Your task to perform on an android device: open app "Venmo" (install if not already installed) Image 0: 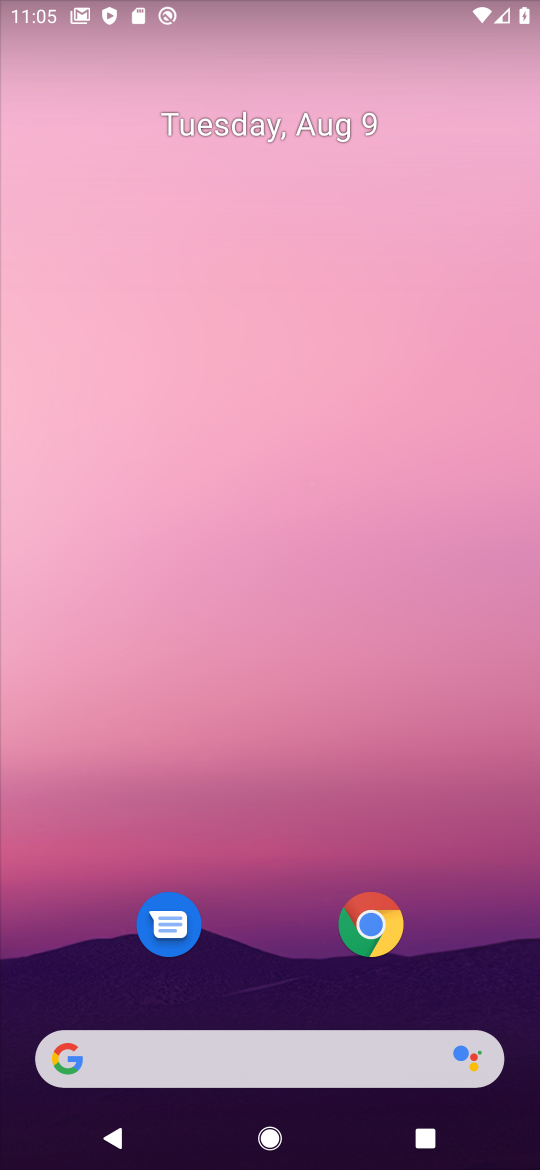
Step 0: drag from (249, 974) to (369, 147)
Your task to perform on an android device: open app "Venmo" (install if not already installed) Image 1: 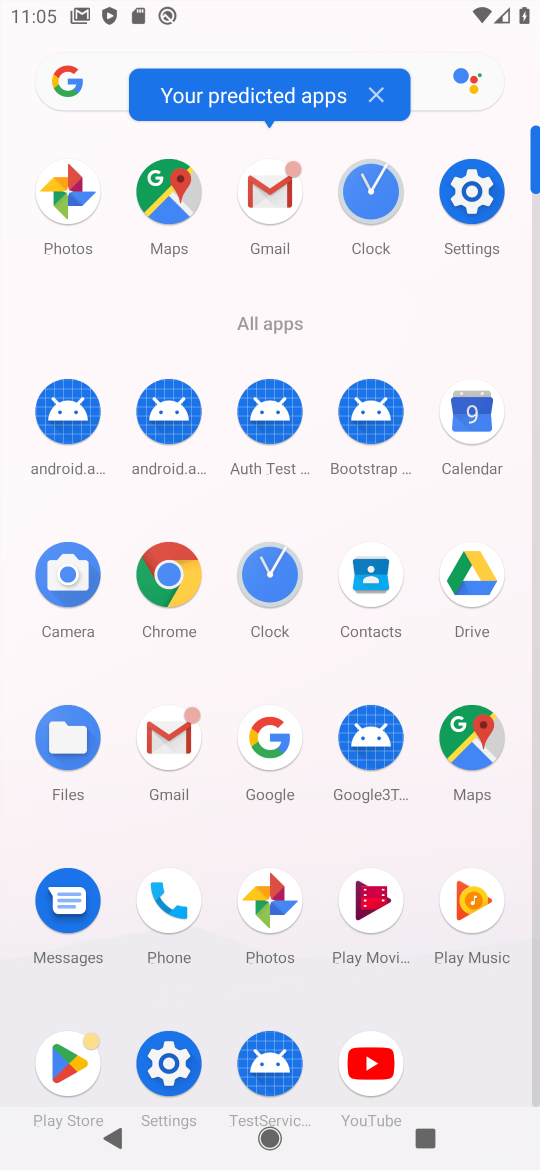
Step 1: click (62, 1058)
Your task to perform on an android device: open app "Venmo" (install if not already installed) Image 2: 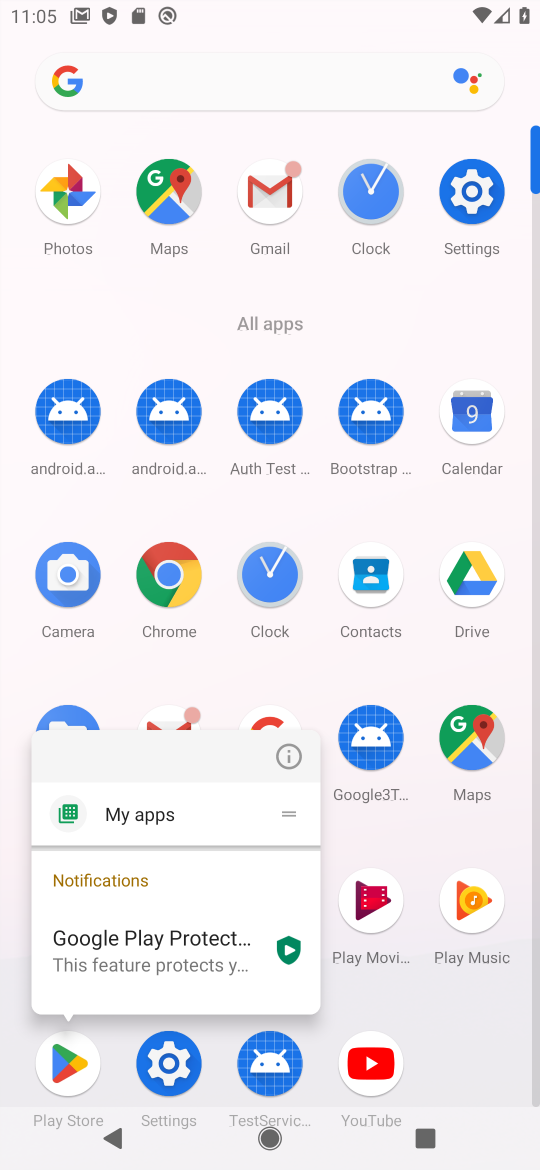
Step 2: click (72, 1060)
Your task to perform on an android device: open app "Venmo" (install if not already installed) Image 3: 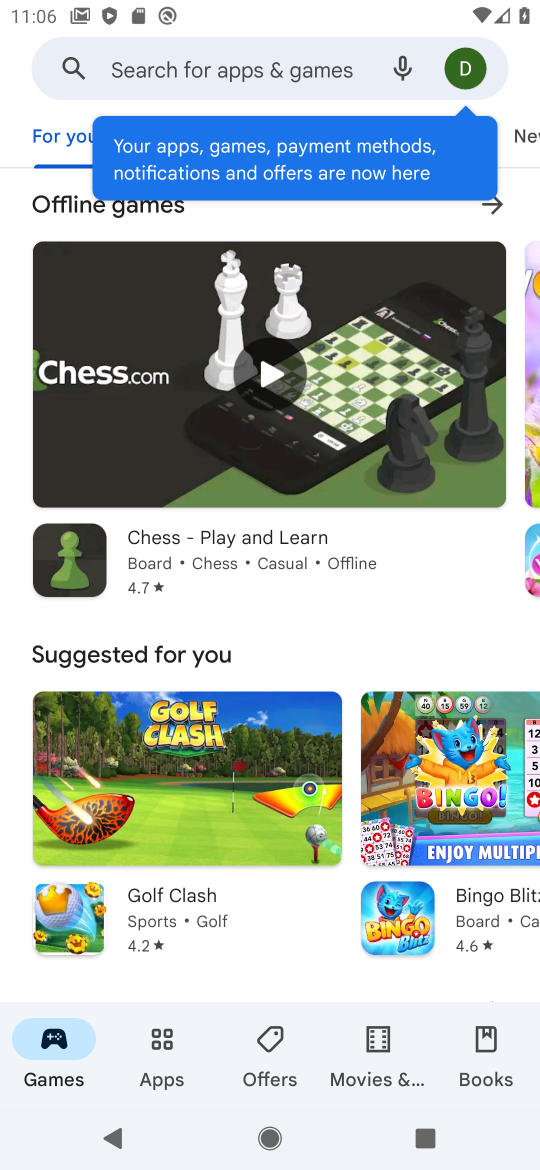
Step 3: click (201, 70)
Your task to perform on an android device: open app "Venmo" (install if not already installed) Image 4: 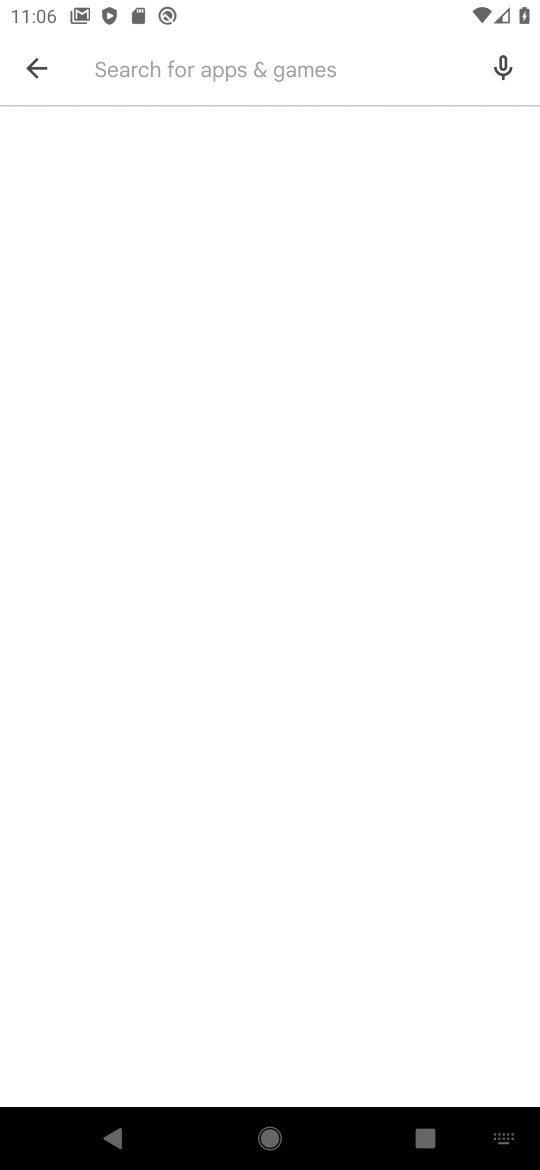
Step 4: type "venmo"
Your task to perform on an android device: open app "Venmo" (install if not already installed) Image 5: 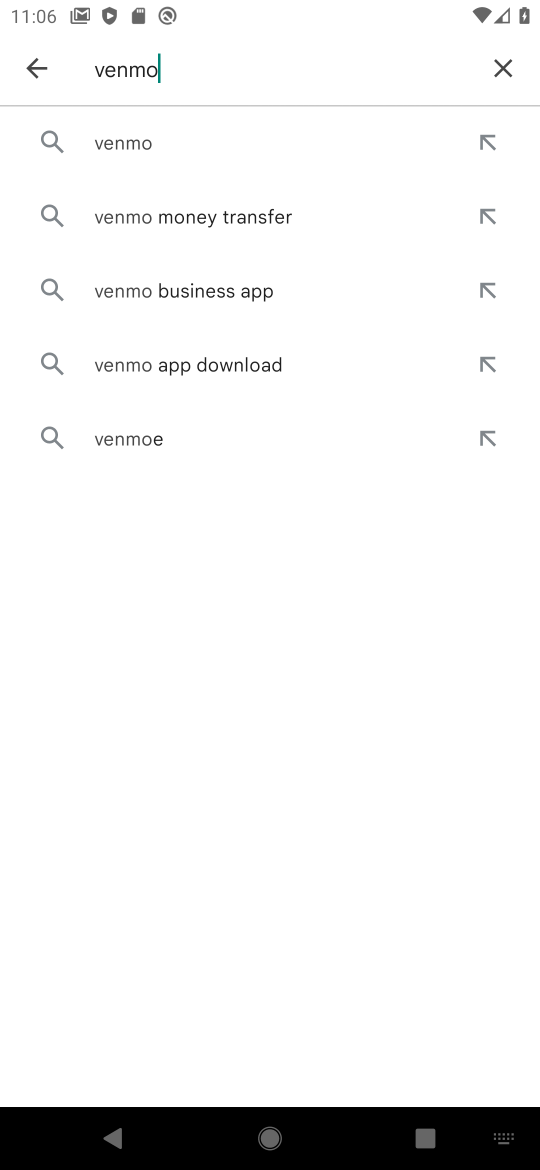
Step 5: click (119, 141)
Your task to perform on an android device: open app "Venmo" (install if not already installed) Image 6: 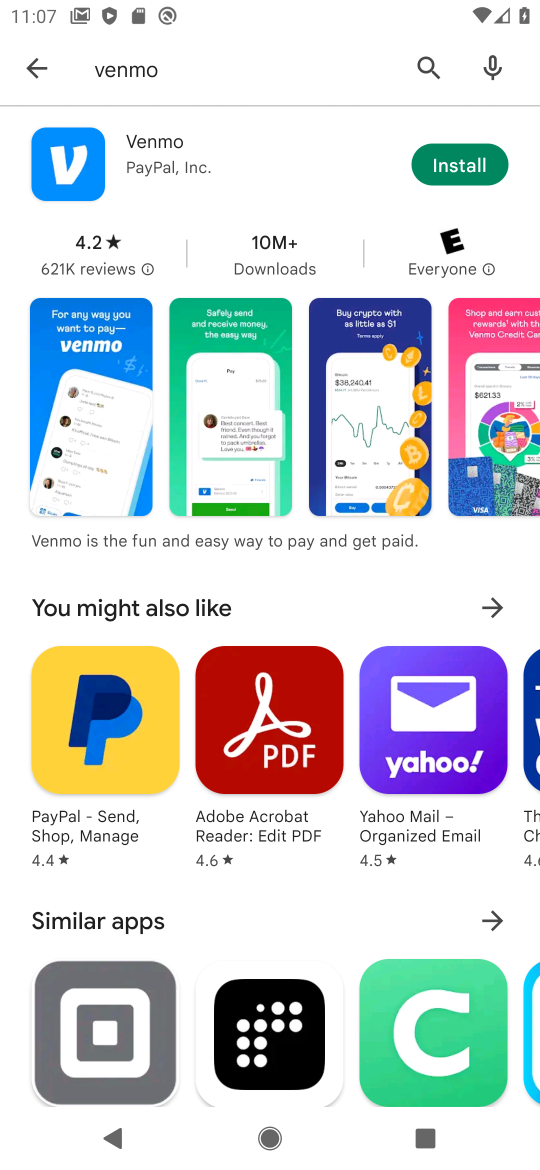
Step 6: click (467, 169)
Your task to perform on an android device: open app "Venmo" (install if not already installed) Image 7: 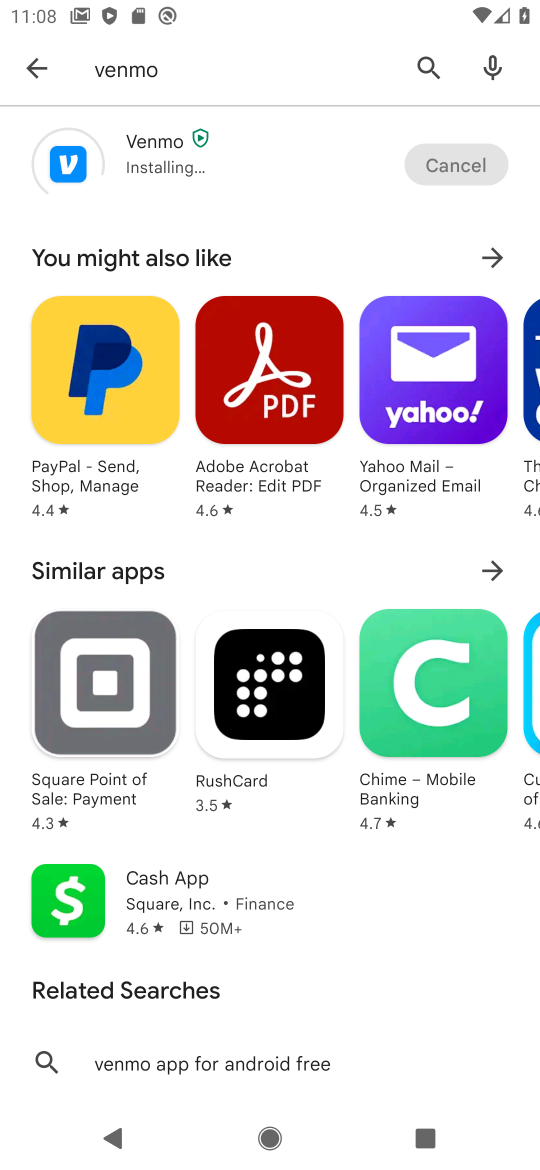
Step 7: drag from (298, 892) to (302, 1159)
Your task to perform on an android device: open app "Venmo" (install if not already installed) Image 8: 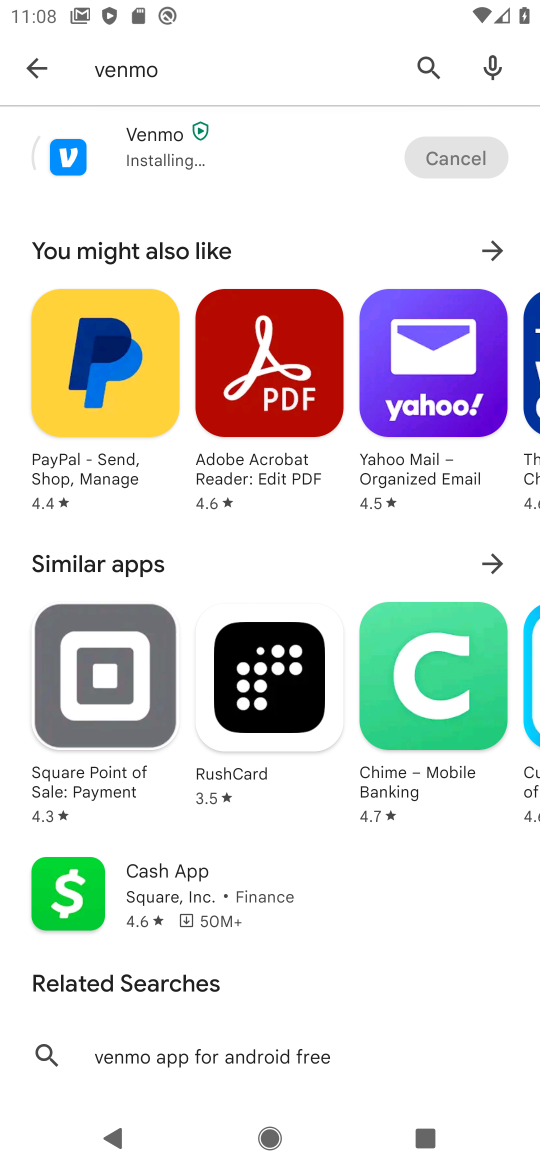
Step 8: click (46, 62)
Your task to perform on an android device: open app "Venmo" (install if not already installed) Image 9: 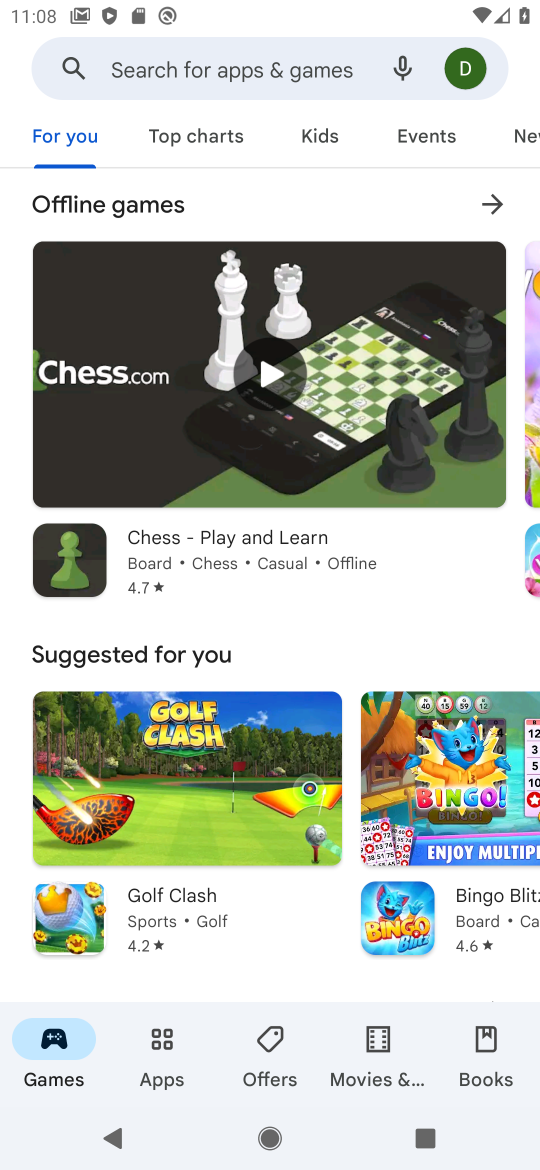
Step 9: click (247, 73)
Your task to perform on an android device: open app "Venmo" (install if not already installed) Image 10: 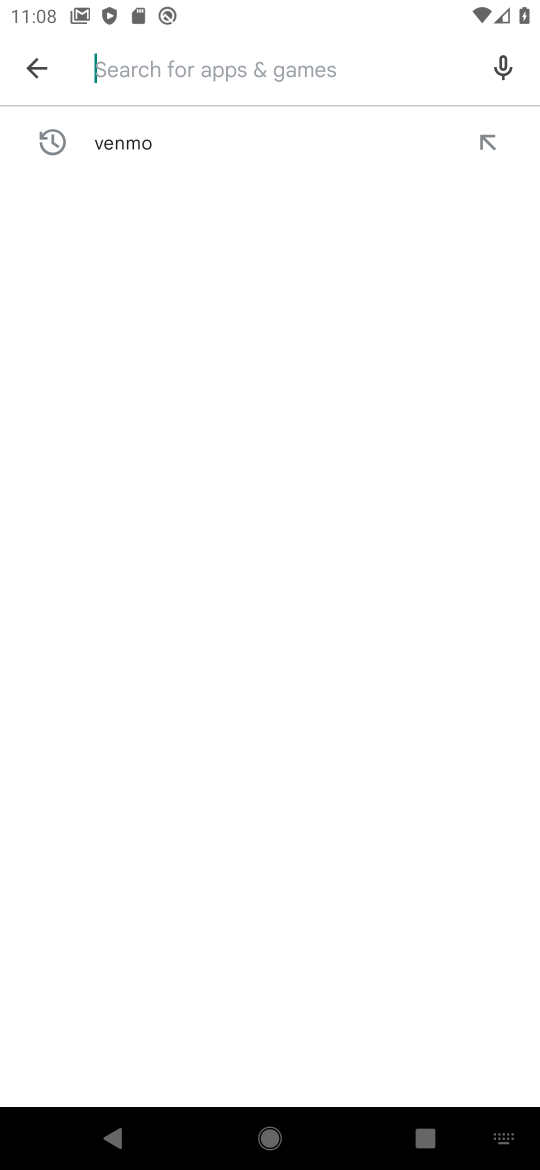
Step 10: click (167, 152)
Your task to perform on an android device: open app "Venmo" (install if not already installed) Image 11: 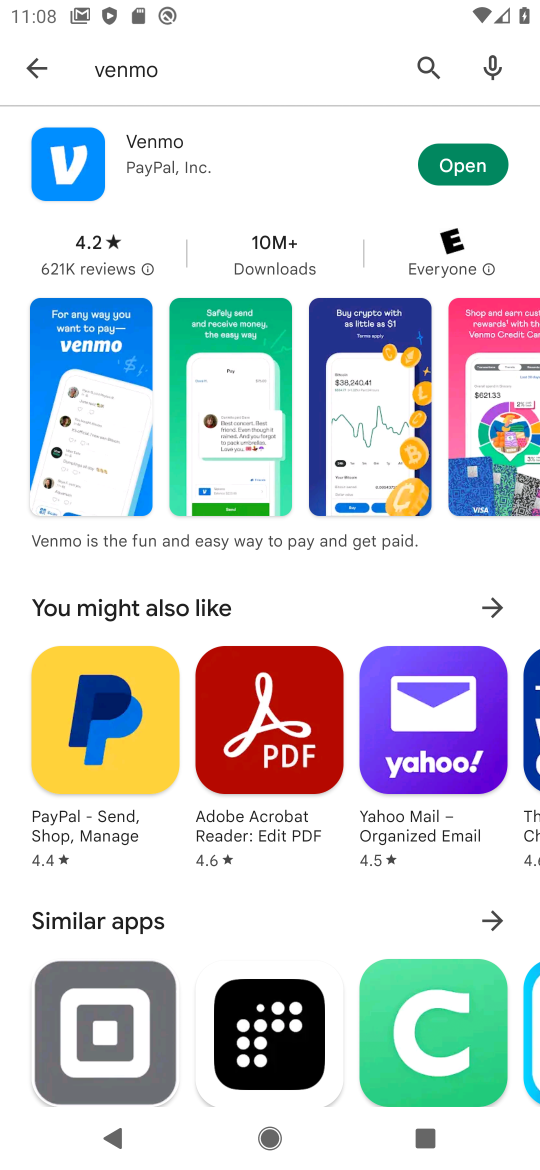
Step 11: click (448, 164)
Your task to perform on an android device: open app "Venmo" (install if not already installed) Image 12: 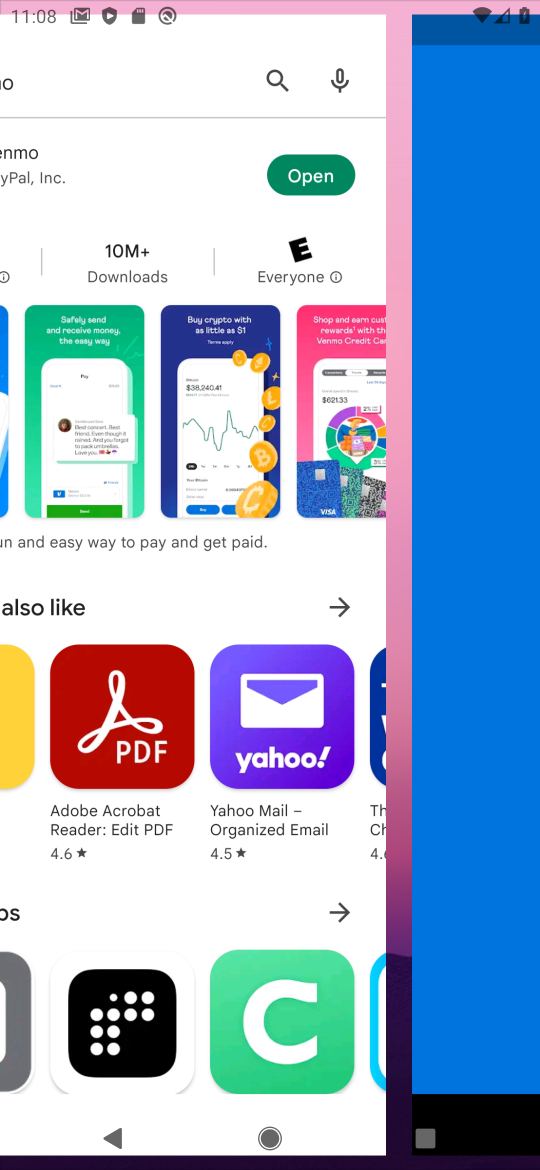
Step 12: task complete